Your task to perform on an android device: turn on location history Image 0: 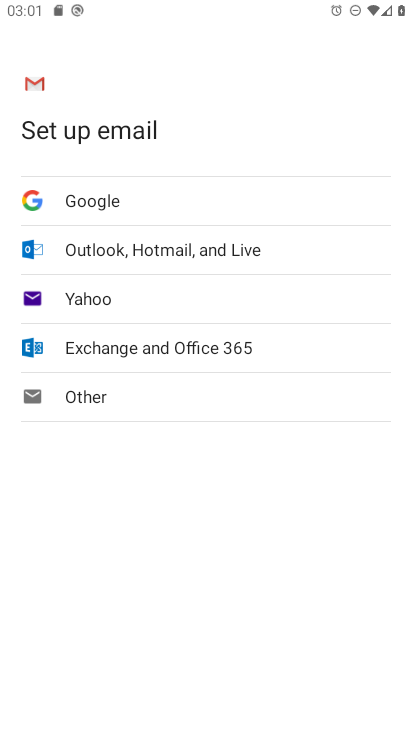
Step 0: press home button
Your task to perform on an android device: turn on location history Image 1: 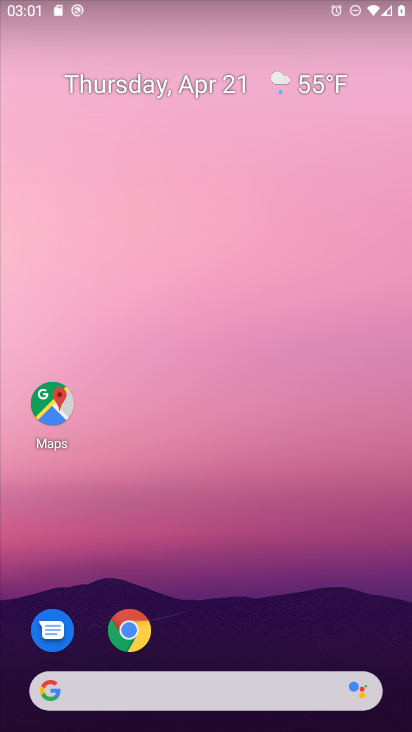
Step 1: drag from (243, 589) to (260, 51)
Your task to perform on an android device: turn on location history Image 2: 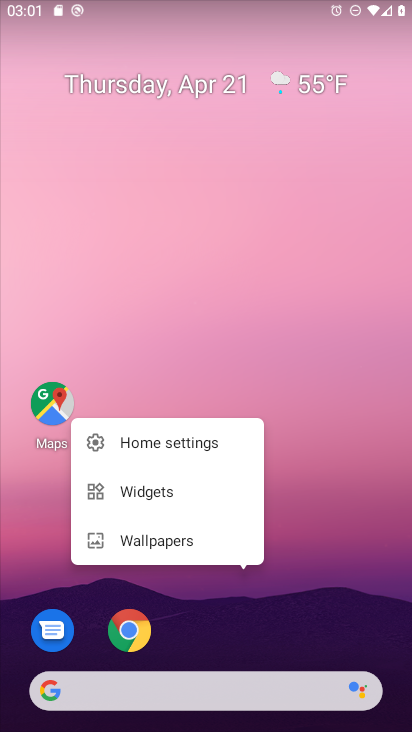
Step 2: drag from (308, 546) to (282, 268)
Your task to perform on an android device: turn on location history Image 3: 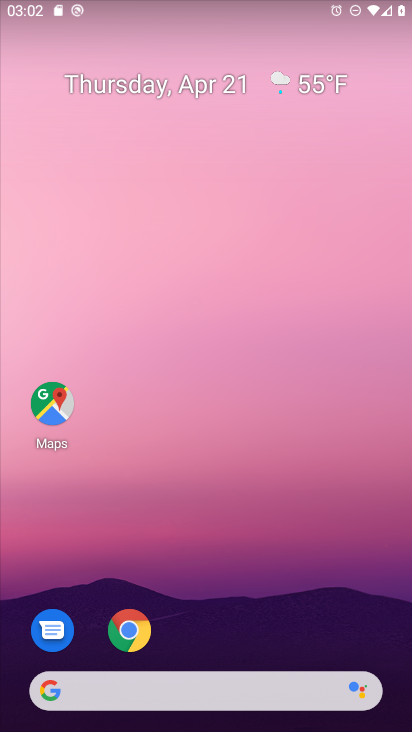
Step 3: drag from (256, 611) to (231, 115)
Your task to perform on an android device: turn on location history Image 4: 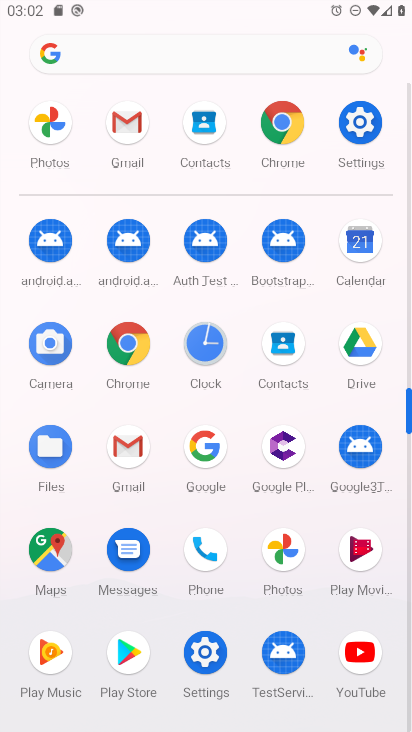
Step 4: click (360, 111)
Your task to perform on an android device: turn on location history Image 5: 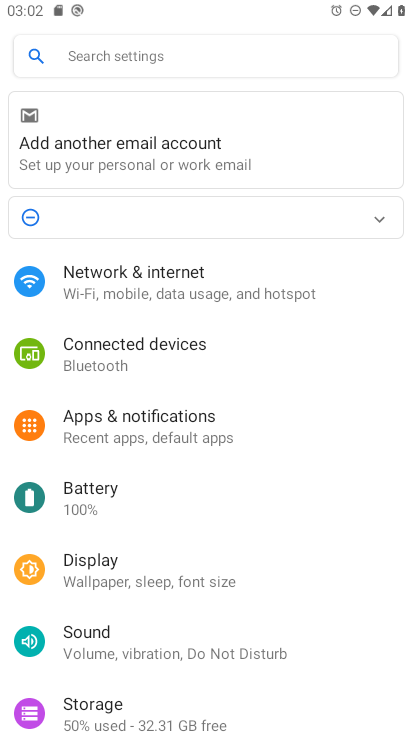
Step 5: drag from (235, 558) to (243, 58)
Your task to perform on an android device: turn on location history Image 6: 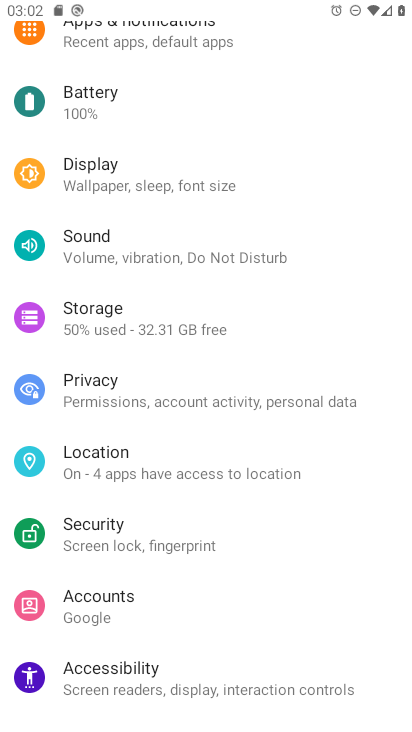
Step 6: click (171, 491)
Your task to perform on an android device: turn on location history Image 7: 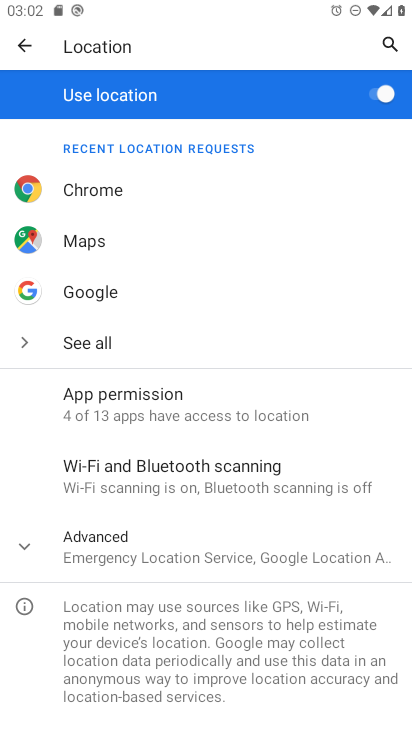
Step 7: drag from (163, 550) to (196, 288)
Your task to perform on an android device: turn on location history Image 8: 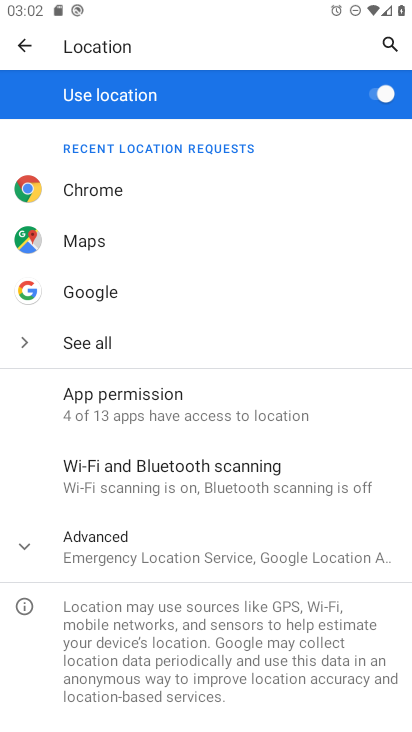
Step 8: click (185, 408)
Your task to perform on an android device: turn on location history Image 9: 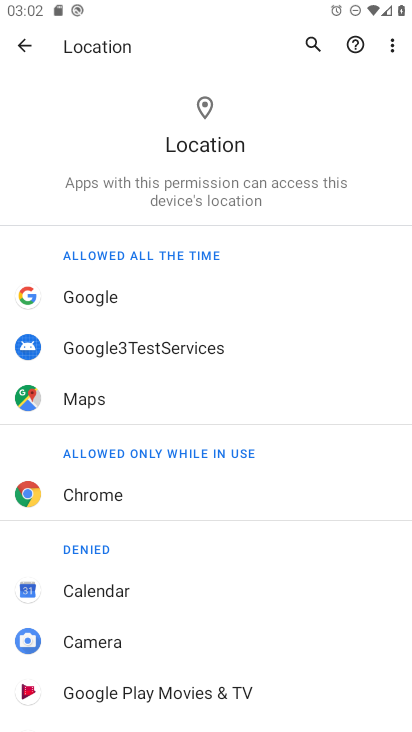
Step 9: click (28, 57)
Your task to perform on an android device: turn on location history Image 10: 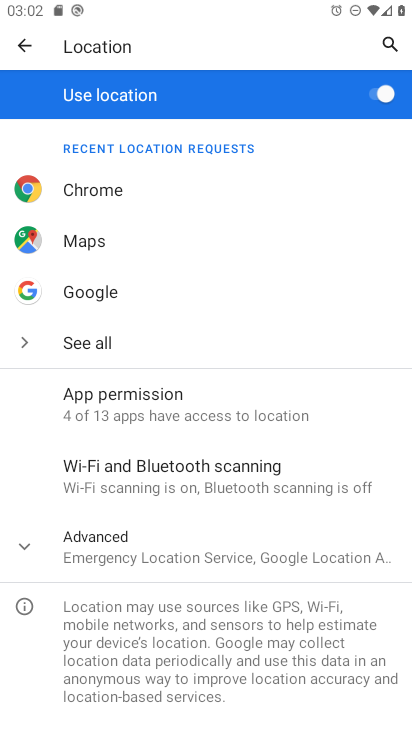
Step 10: click (146, 549)
Your task to perform on an android device: turn on location history Image 11: 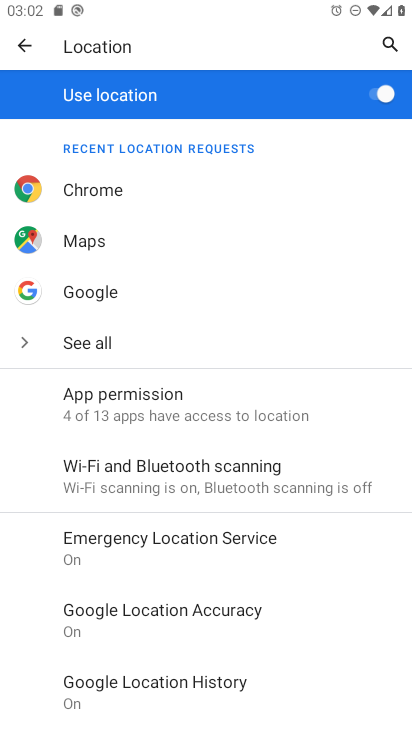
Step 11: click (181, 690)
Your task to perform on an android device: turn on location history Image 12: 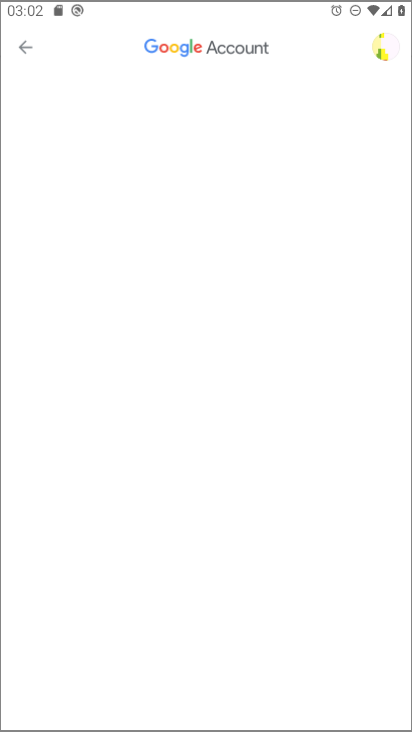
Step 12: task complete